Your task to perform on an android device: open app "Etsy: Buy & Sell Unique Items" (install if not already installed) and go to login screen Image 0: 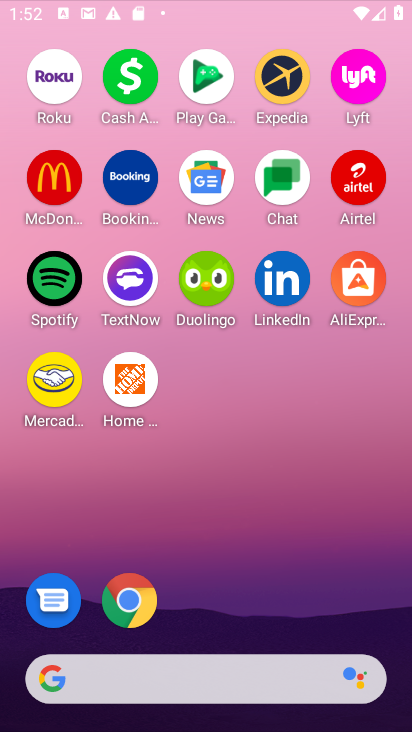
Step 0: click (269, 614)
Your task to perform on an android device: open app "Etsy: Buy & Sell Unique Items" (install if not already installed) and go to login screen Image 1: 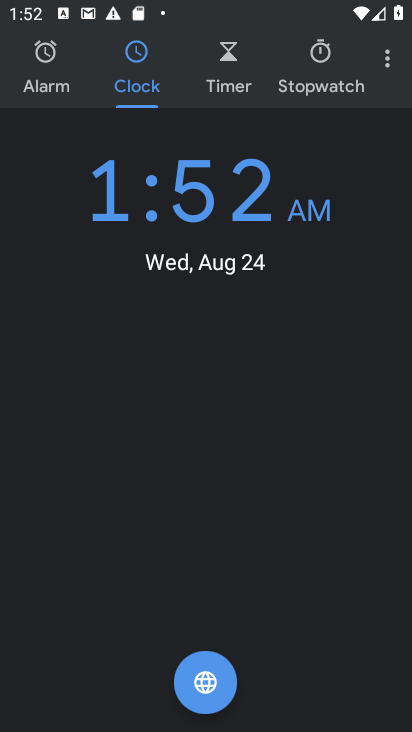
Step 1: press home button
Your task to perform on an android device: open app "Etsy: Buy & Sell Unique Items" (install if not already installed) and go to login screen Image 2: 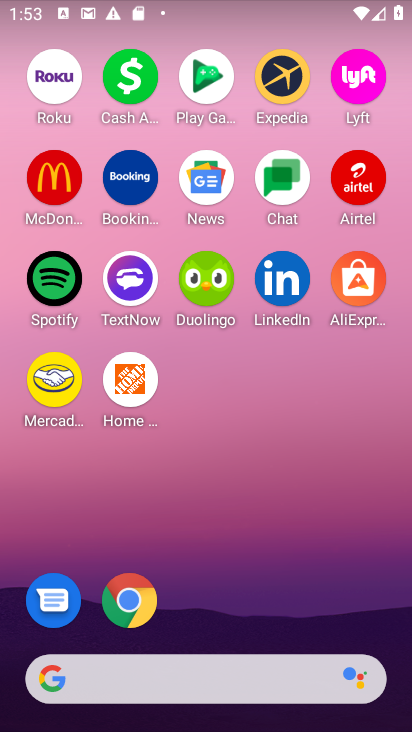
Step 2: drag from (251, 608) to (247, 35)
Your task to perform on an android device: open app "Etsy: Buy & Sell Unique Items" (install if not already installed) and go to login screen Image 3: 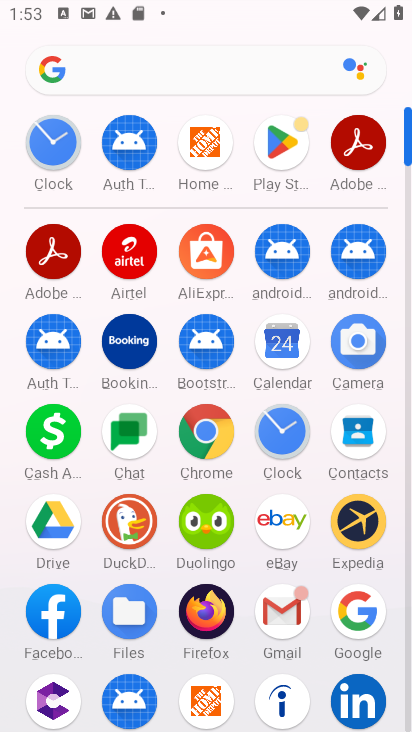
Step 3: click (287, 164)
Your task to perform on an android device: open app "Etsy: Buy & Sell Unique Items" (install if not already installed) and go to login screen Image 4: 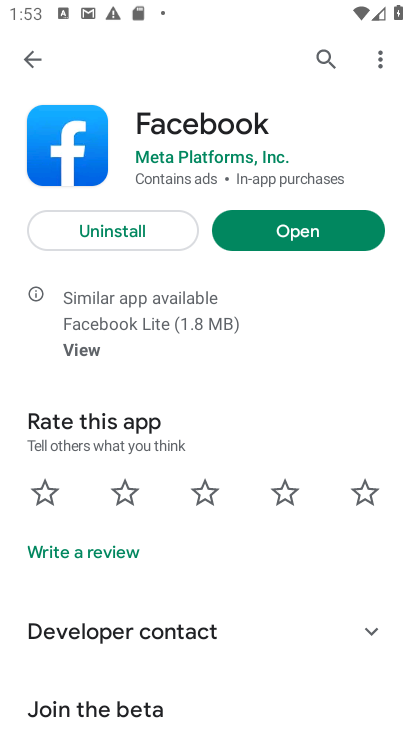
Step 4: click (332, 57)
Your task to perform on an android device: open app "Etsy: Buy & Sell Unique Items" (install if not already installed) and go to login screen Image 5: 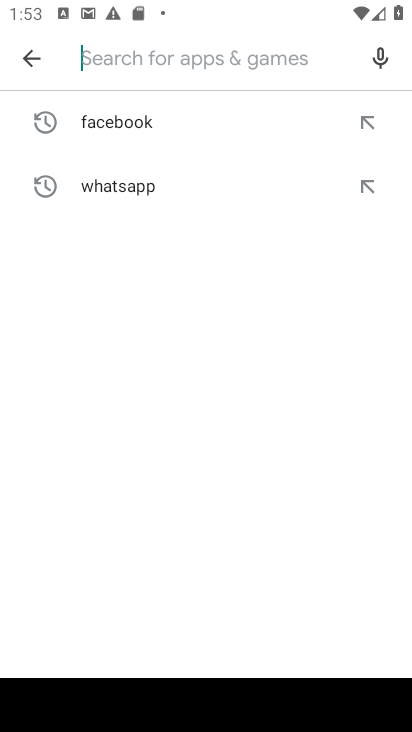
Step 5: type "etsy"
Your task to perform on an android device: open app "Etsy: Buy & Sell Unique Items" (install if not already installed) and go to login screen Image 6: 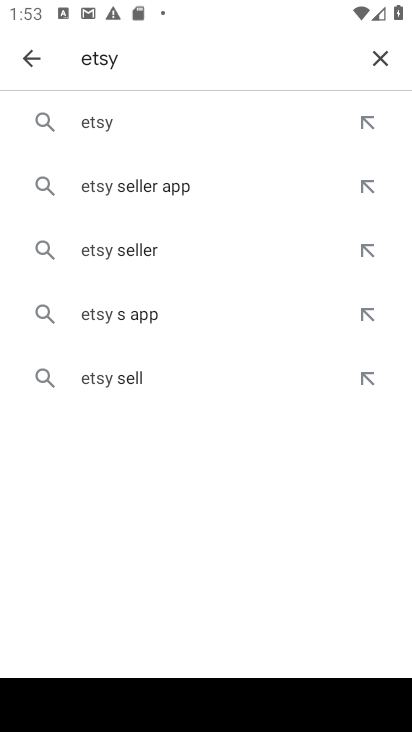
Step 6: click (117, 125)
Your task to perform on an android device: open app "Etsy: Buy & Sell Unique Items" (install if not already installed) and go to login screen Image 7: 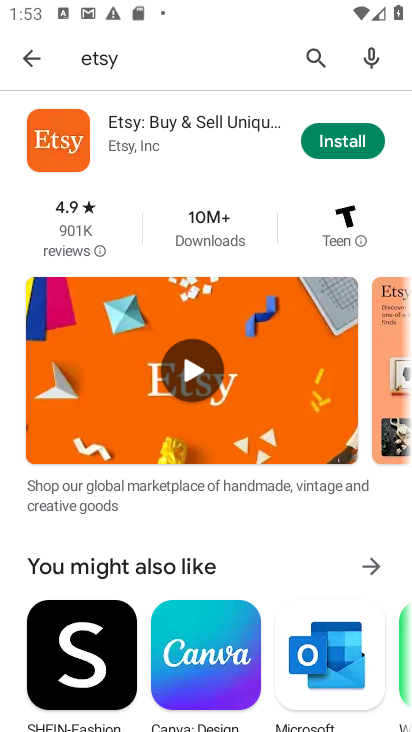
Step 7: click (337, 147)
Your task to perform on an android device: open app "Etsy: Buy & Sell Unique Items" (install if not already installed) and go to login screen Image 8: 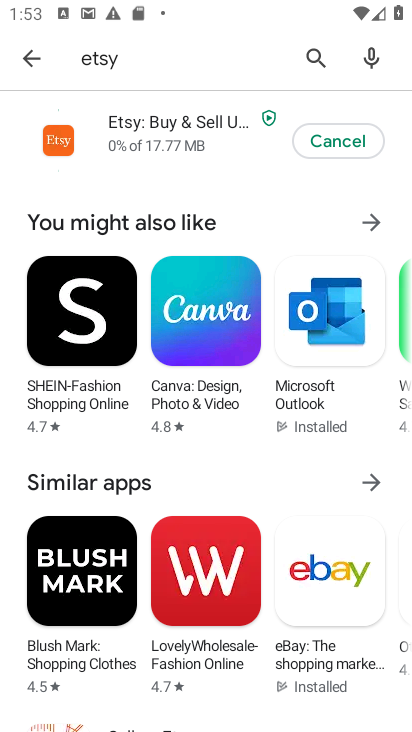
Step 8: task complete